Your task to perform on an android device: turn off location history Image 0: 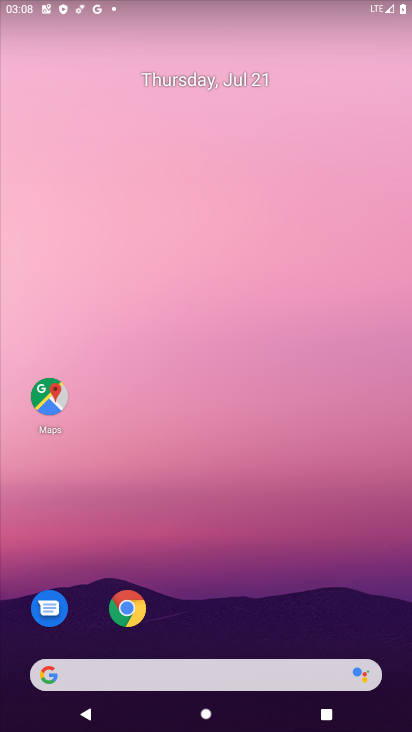
Step 0: drag from (196, 653) to (104, 27)
Your task to perform on an android device: turn off location history Image 1: 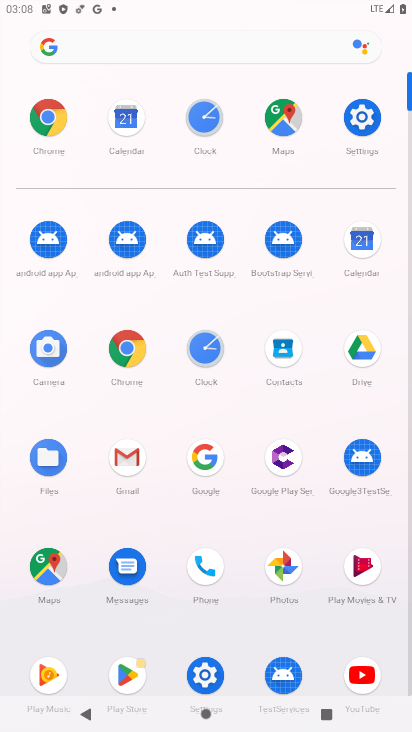
Step 1: click (365, 119)
Your task to perform on an android device: turn off location history Image 2: 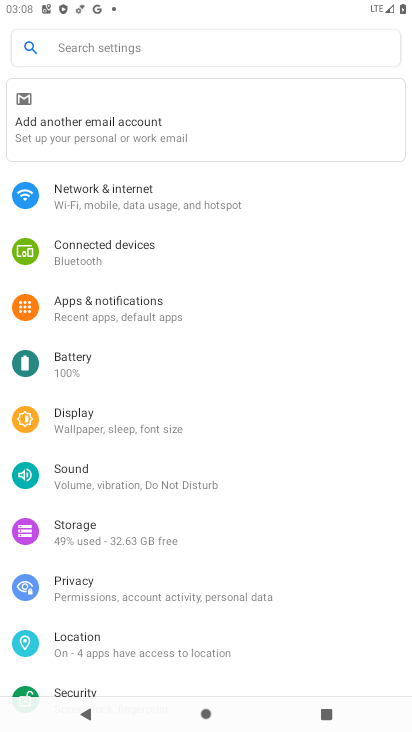
Step 2: click (130, 654)
Your task to perform on an android device: turn off location history Image 3: 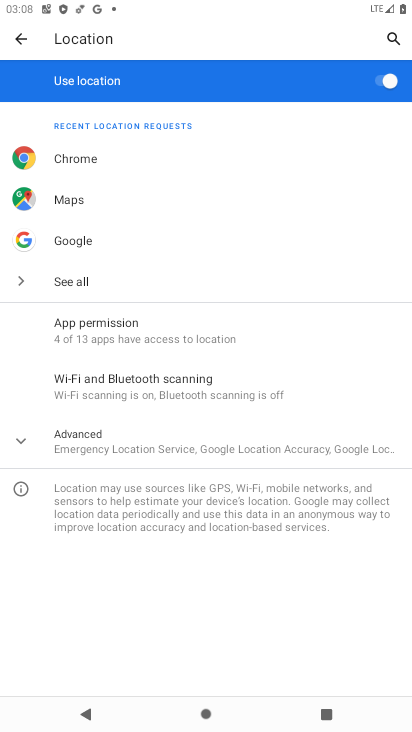
Step 3: click (86, 425)
Your task to perform on an android device: turn off location history Image 4: 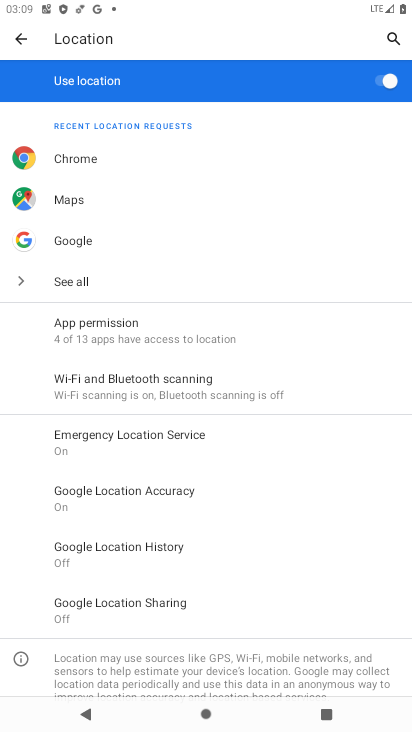
Step 4: click (169, 542)
Your task to perform on an android device: turn off location history Image 5: 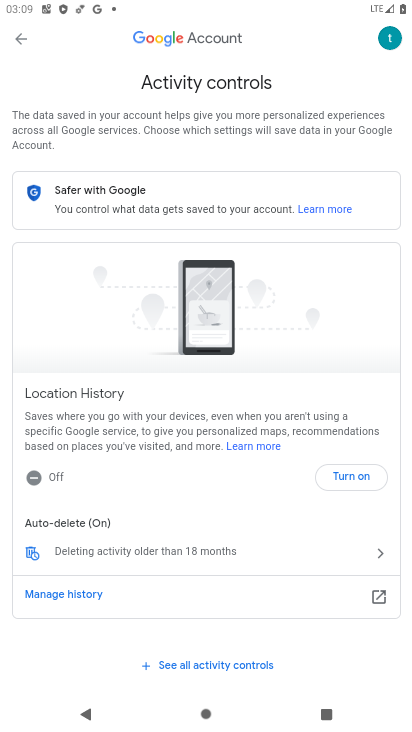
Step 5: task complete